Your task to perform on an android device: Open Google Chrome and open the bookmarks view Image 0: 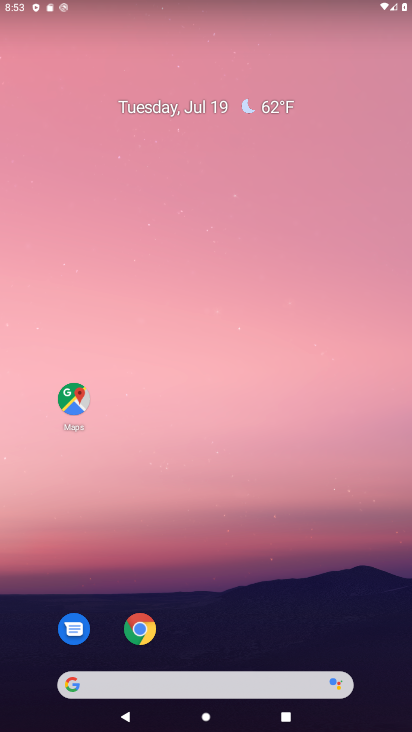
Step 0: press home button
Your task to perform on an android device: Open Google Chrome and open the bookmarks view Image 1: 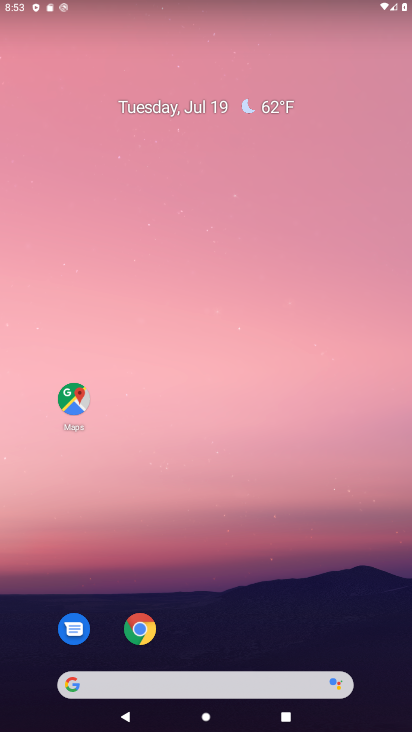
Step 1: click (139, 626)
Your task to perform on an android device: Open Google Chrome and open the bookmarks view Image 2: 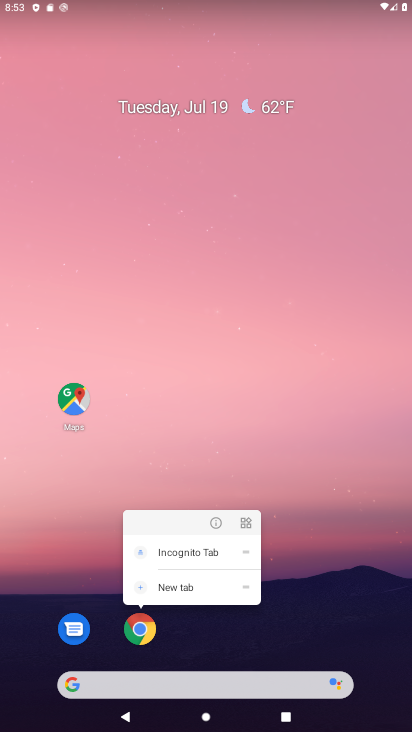
Step 2: click (136, 629)
Your task to perform on an android device: Open Google Chrome and open the bookmarks view Image 3: 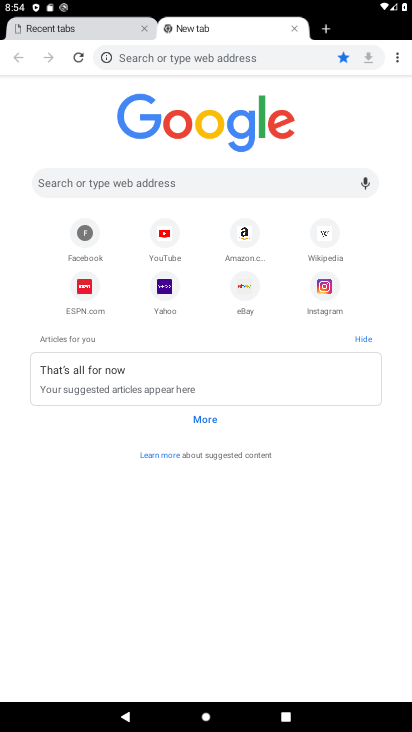
Step 3: click (395, 56)
Your task to perform on an android device: Open Google Chrome and open the bookmarks view Image 4: 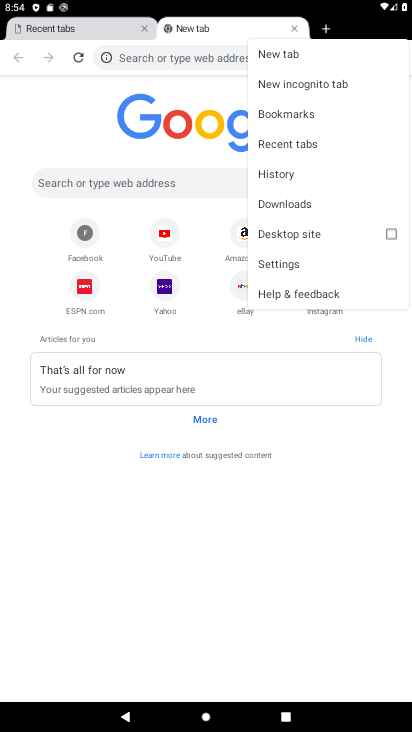
Step 4: click (320, 110)
Your task to perform on an android device: Open Google Chrome and open the bookmarks view Image 5: 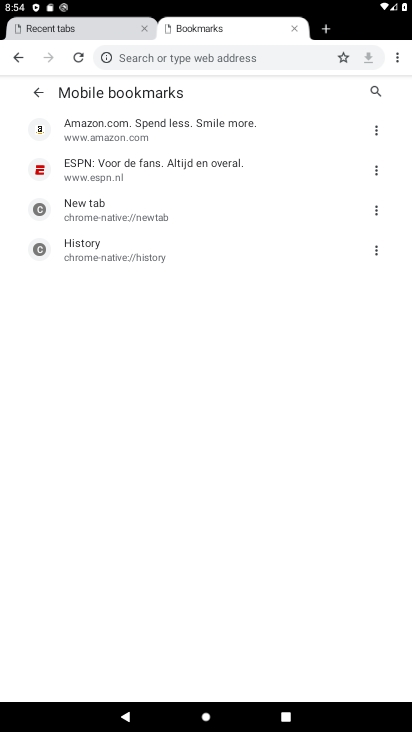
Step 5: click (376, 212)
Your task to perform on an android device: Open Google Chrome and open the bookmarks view Image 6: 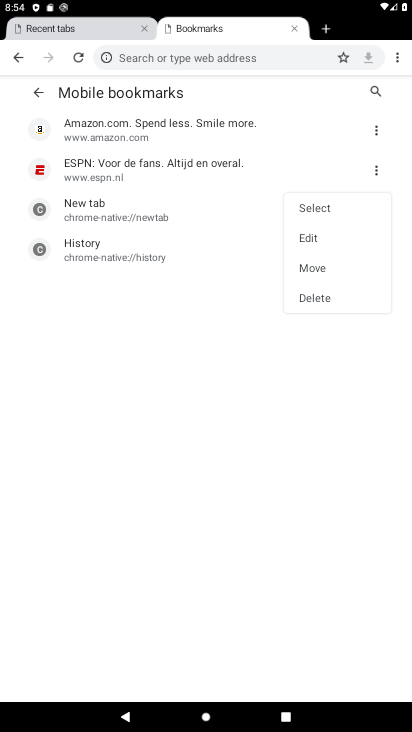
Step 6: click (318, 294)
Your task to perform on an android device: Open Google Chrome and open the bookmarks view Image 7: 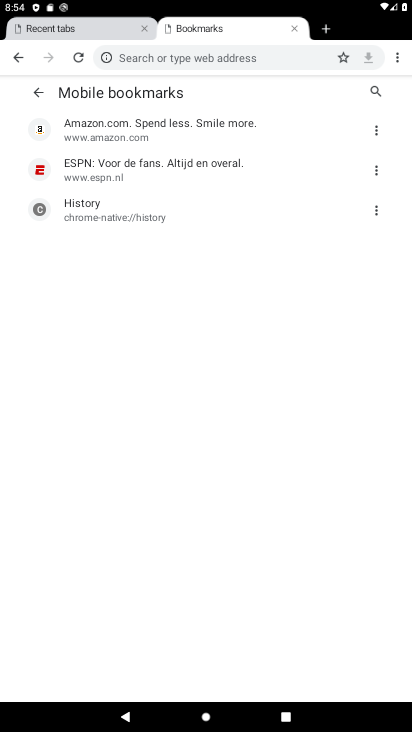
Step 7: task complete